Your task to perform on an android device: set the stopwatch Image 0: 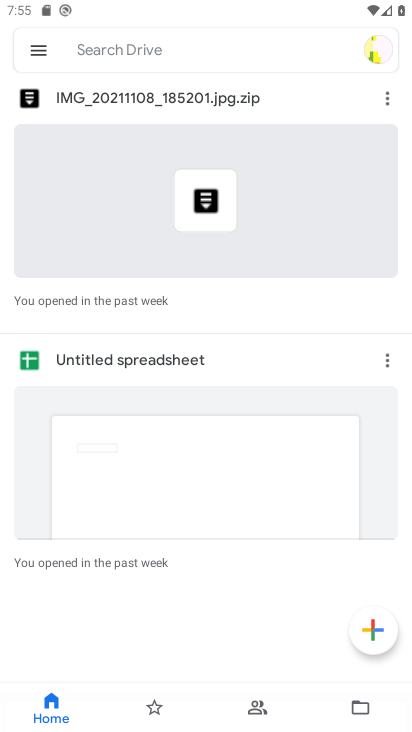
Step 0: press home button
Your task to perform on an android device: set the stopwatch Image 1: 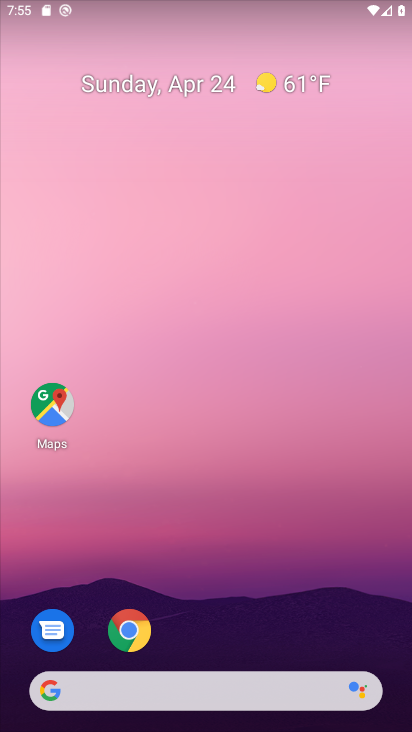
Step 1: drag from (361, 616) to (358, 124)
Your task to perform on an android device: set the stopwatch Image 2: 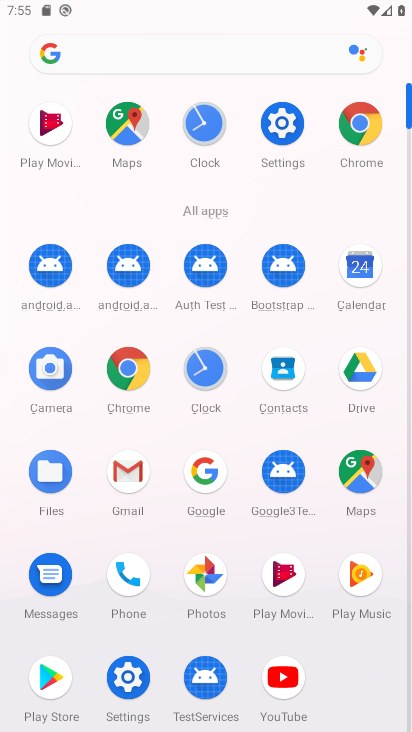
Step 2: click (200, 378)
Your task to perform on an android device: set the stopwatch Image 3: 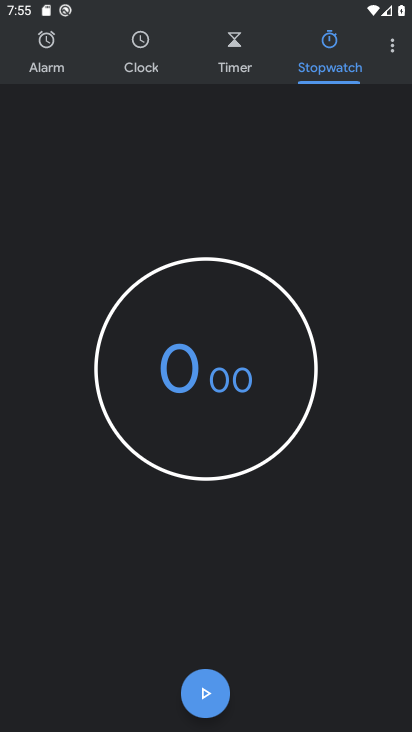
Step 3: click (218, 686)
Your task to perform on an android device: set the stopwatch Image 4: 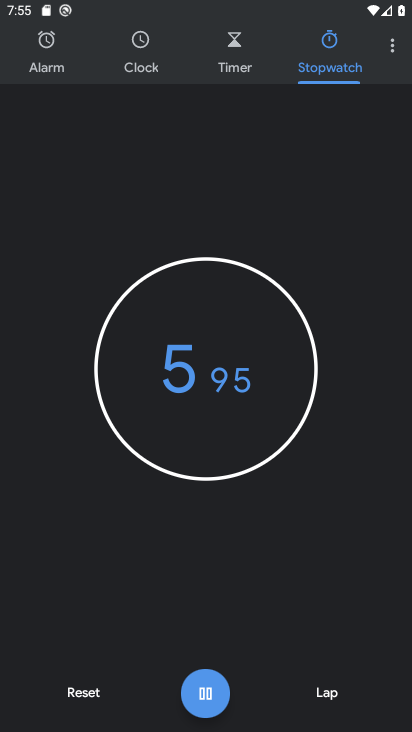
Step 4: task complete